Your task to perform on an android device: toggle show notifications on the lock screen Image 0: 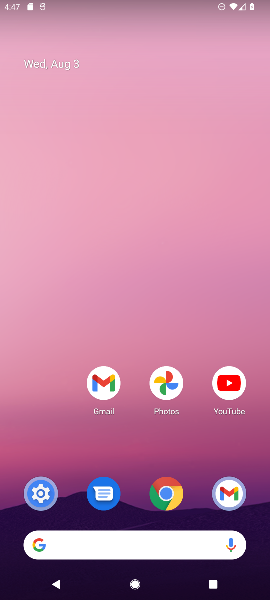
Step 0: press home button
Your task to perform on an android device: toggle show notifications on the lock screen Image 1: 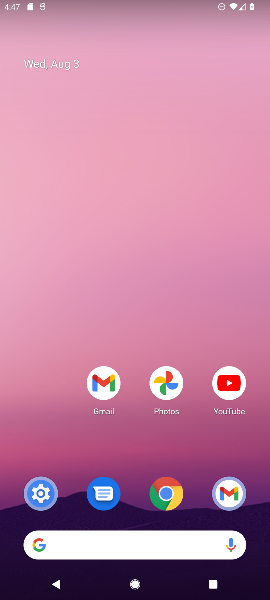
Step 1: drag from (63, 451) to (74, 176)
Your task to perform on an android device: toggle show notifications on the lock screen Image 2: 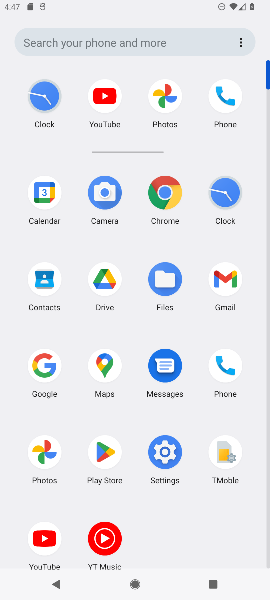
Step 2: click (171, 454)
Your task to perform on an android device: toggle show notifications on the lock screen Image 3: 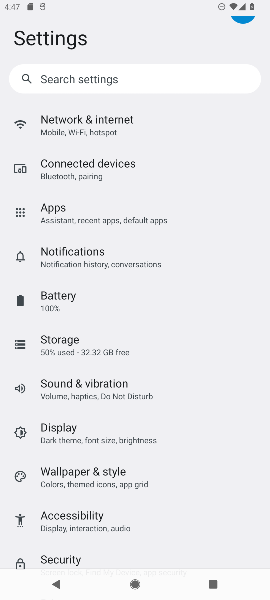
Step 3: drag from (206, 427) to (210, 381)
Your task to perform on an android device: toggle show notifications on the lock screen Image 4: 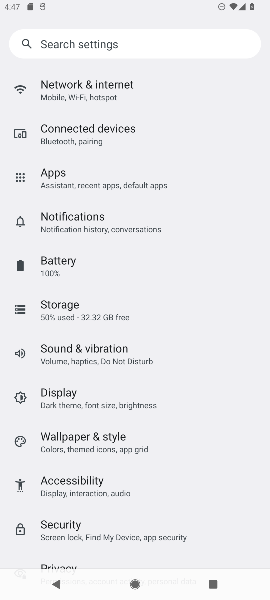
Step 4: drag from (208, 496) to (214, 421)
Your task to perform on an android device: toggle show notifications on the lock screen Image 5: 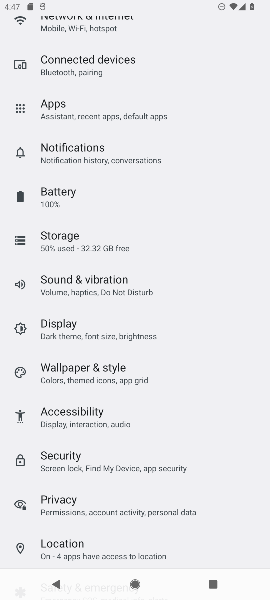
Step 5: drag from (215, 518) to (214, 438)
Your task to perform on an android device: toggle show notifications on the lock screen Image 6: 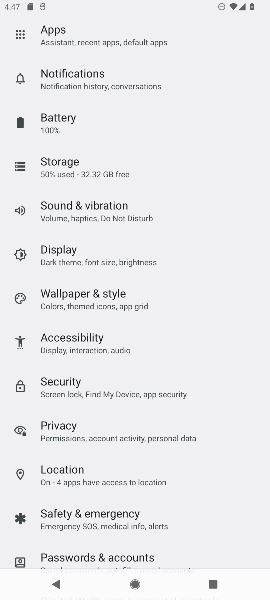
Step 6: drag from (211, 519) to (215, 437)
Your task to perform on an android device: toggle show notifications on the lock screen Image 7: 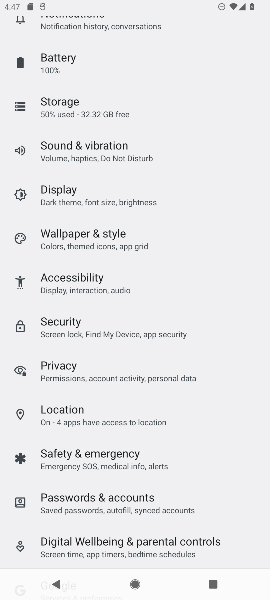
Step 7: drag from (225, 503) to (235, 399)
Your task to perform on an android device: toggle show notifications on the lock screen Image 8: 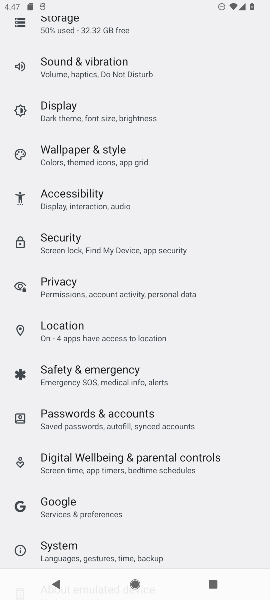
Step 8: drag from (234, 295) to (235, 370)
Your task to perform on an android device: toggle show notifications on the lock screen Image 9: 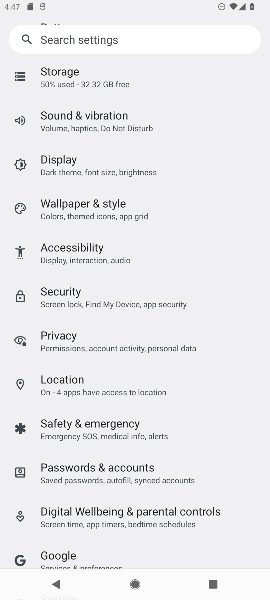
Step 9: drag from (221, 249) to (225, 337)
Your task to perform on an android device: toggle show notifications on the lock screen Image 10: 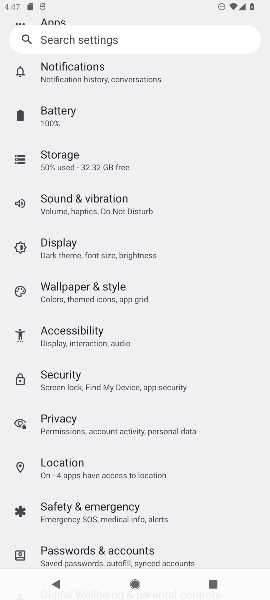
Step 10: drag from (221, 226) to (227, 313)
Your task to perform on an android device: toggle show notifications on the lock screen Image 11: 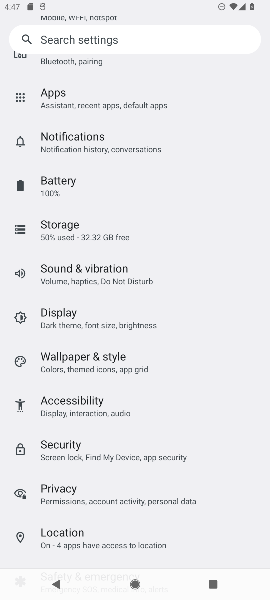
Step 11: drag from (205, 208) to (206, 378)
Your task to perform on an android device: toggle show notifications on the lock screen Image 12: 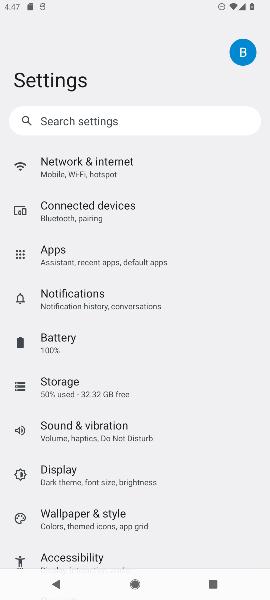
Step 12: click (134, 298)
Your task to perform on an android device: toggle show notifications on the lock screen Image 13: 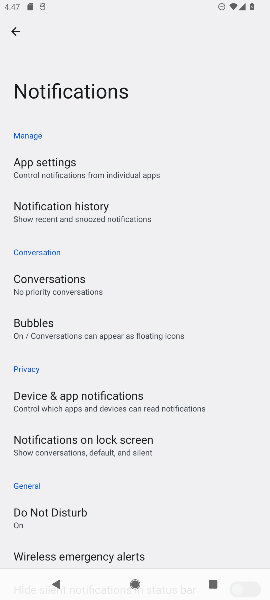
Step 13: click (140, 453)
Your task to perform on an android device: toggle show notifications on the lock screen Image 14: 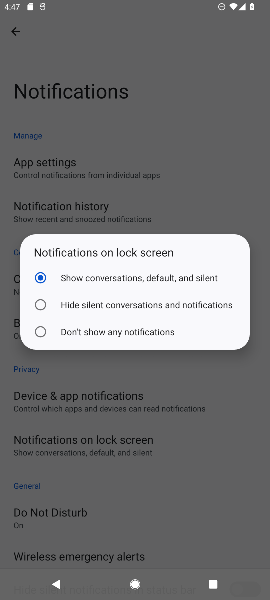
Step 14: click (172, 306)
Your task to perform on an android device: toggle show notifications on the lock screen Image 15: 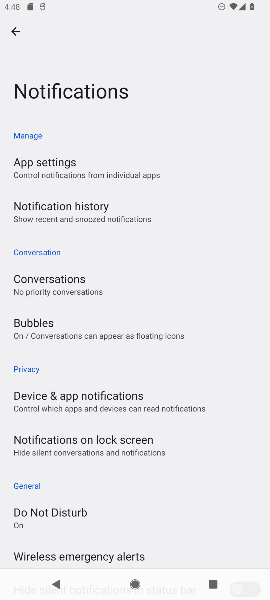
Step 15: task complete